Your task to perform on an android device: Open network settings Image 0: 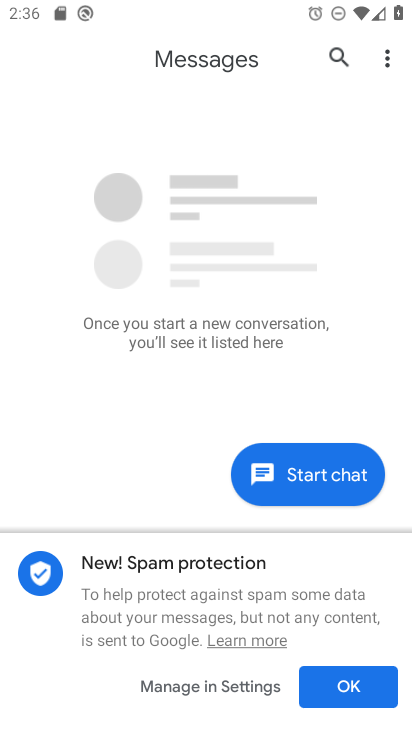
Step 0: press home button
Your task to perform on an android device: Open network settings Image 1: 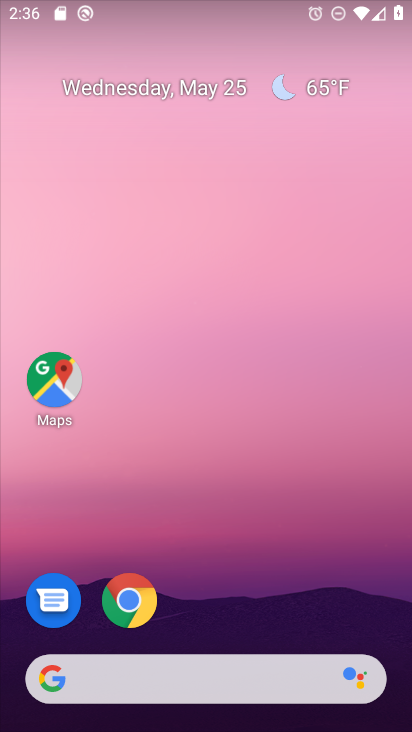
Step 1: drag from (296, 488) to (272, 20)
Your task to perform on an android device: Open network settings Image 2: 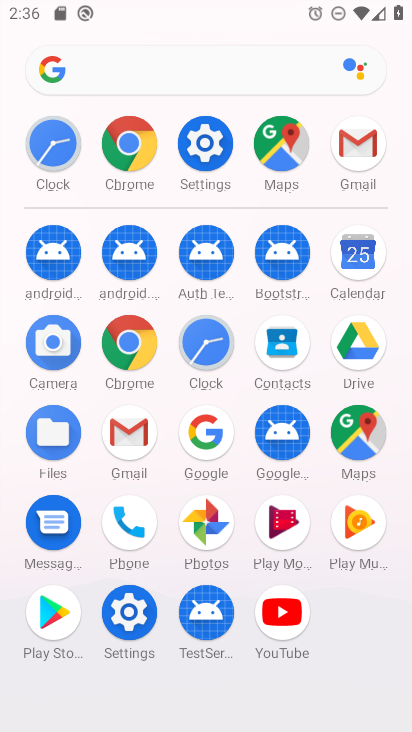
Step 2: click (201, 148)
Your task to perform on an android device: Open network settings Image 3: 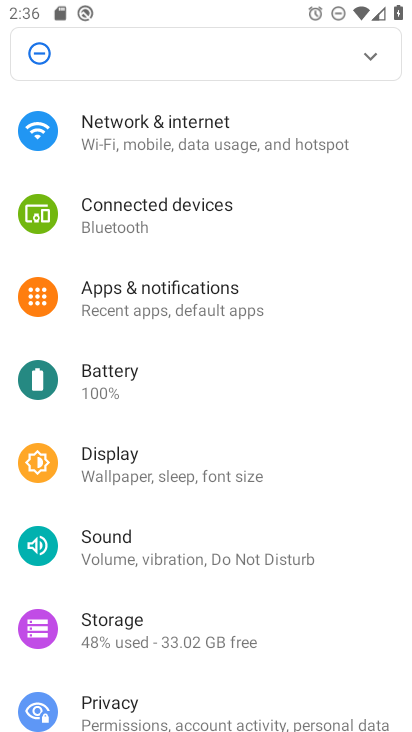
Step 3: drag from (156, 552) to (226, 102)
Your task to perform on an android device: Open network settings Image 4: 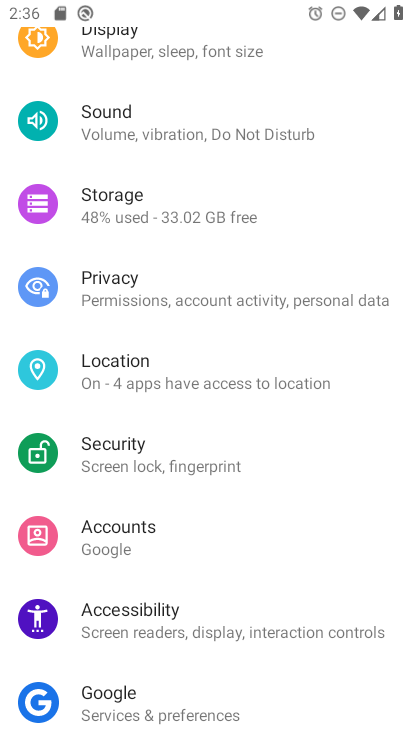
Step 4: drag from (251, 554) to (132, 704)
Your task to perform on an android device: Open network settings Image 5: 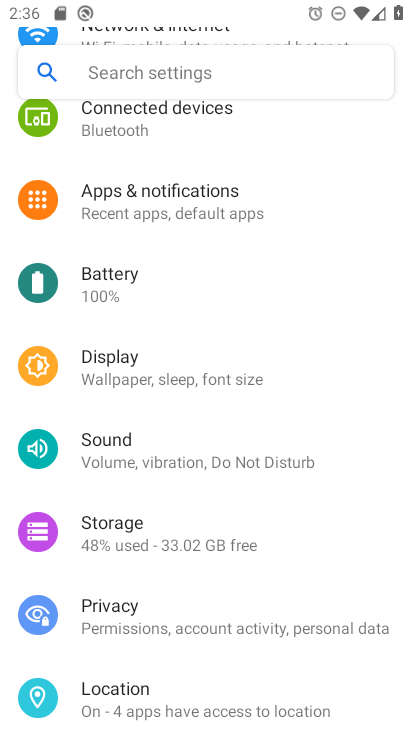
Step 5: drag from (181, 187) to (101, 591)
Your task to perform on an android device: Open network settings Image 6: 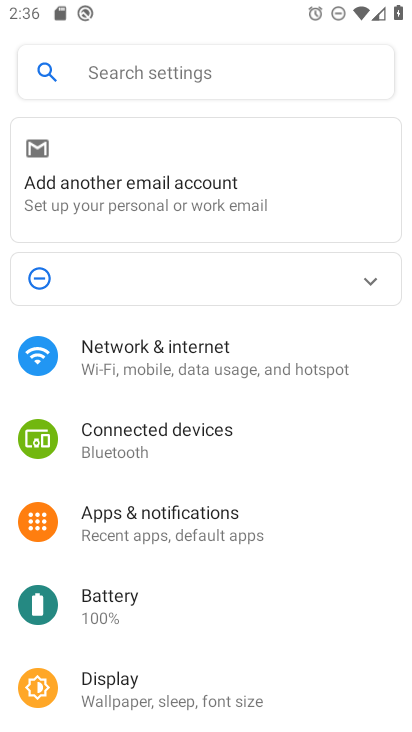
Step 6: click (141, 360)
Your task to perform on an android device: Open network settings Image 7: 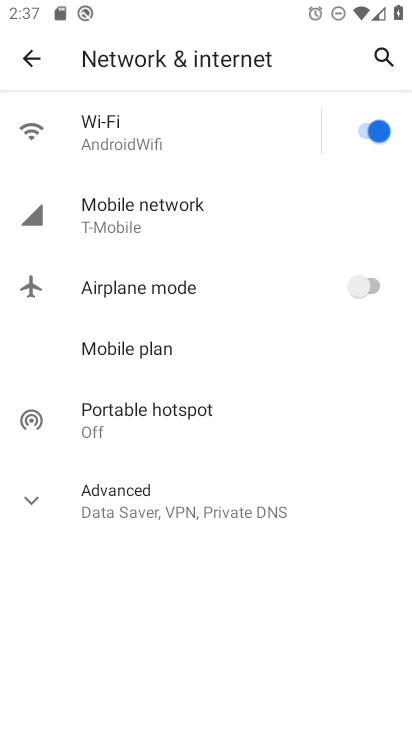
Step 7: task complete